Your task to perform on an android device: Turn on the flashlight Image 0: 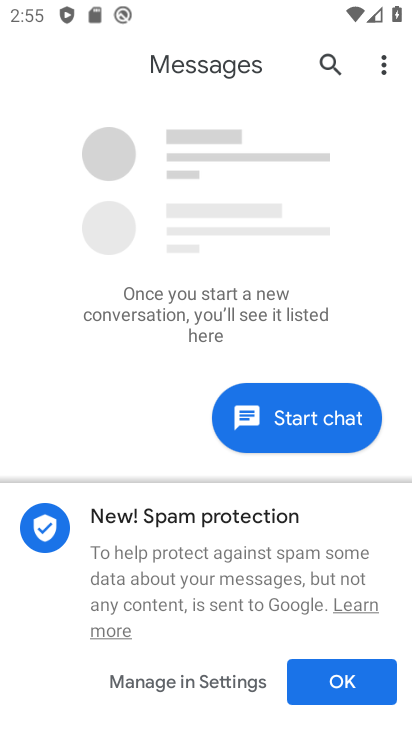
Step 0: drag from (245, 2) to (409, 616)
Your task to perform on an android device: Turn on the flashlight Image 1: 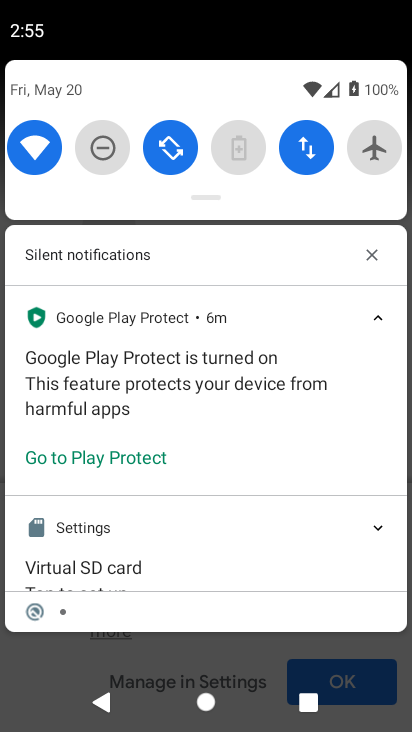
Step 1: drag from (200, 177) to (173, 598)
Your task to perform on an android device: Turn on the flashlight Image 2: 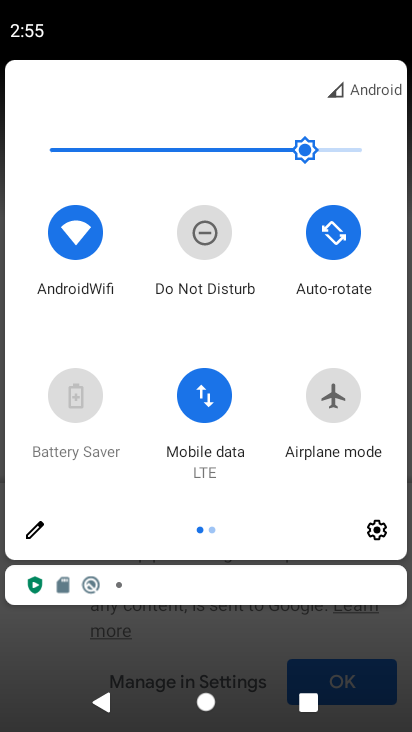
Step 2: click (37, 525)
Your task to perform on an android device: Turn on the flashlight Image 3: 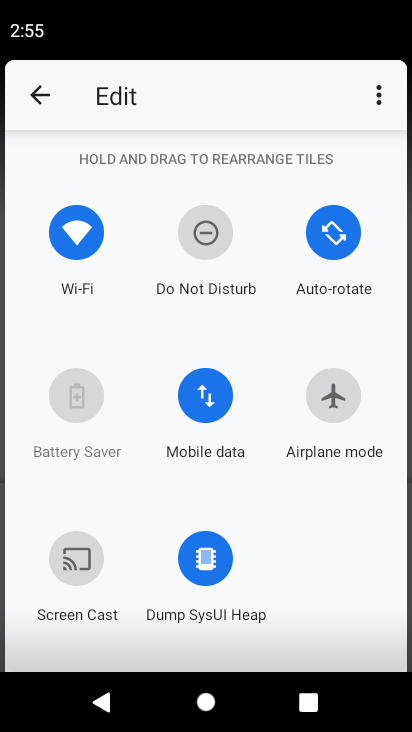
Step 3: task complete